Your task to perform on an android device: What's the weather? Image 0: 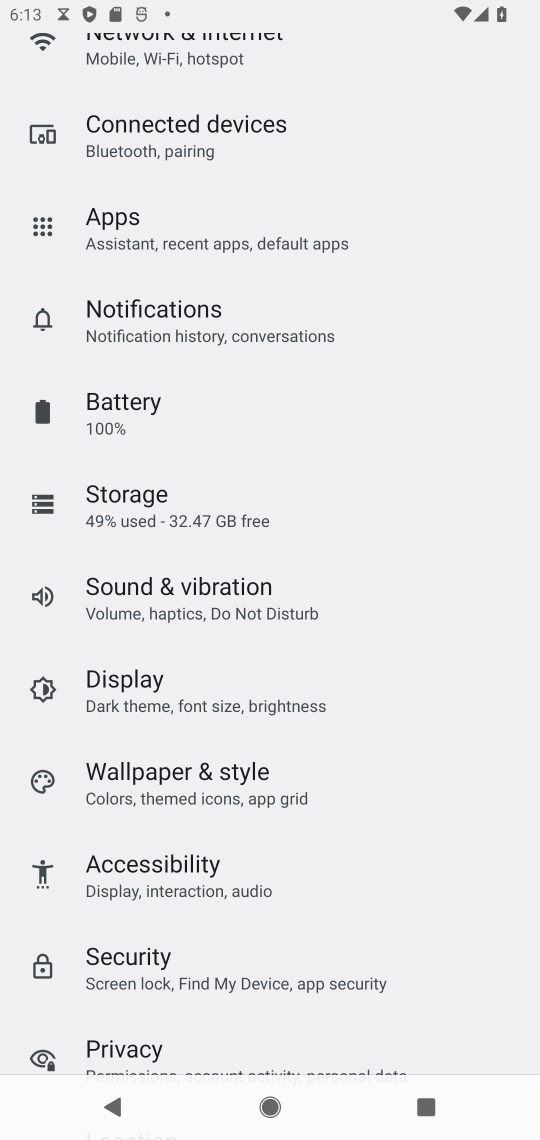
Step 0: press home button
Your task to perform on an android device: What's the weather? Image 1: 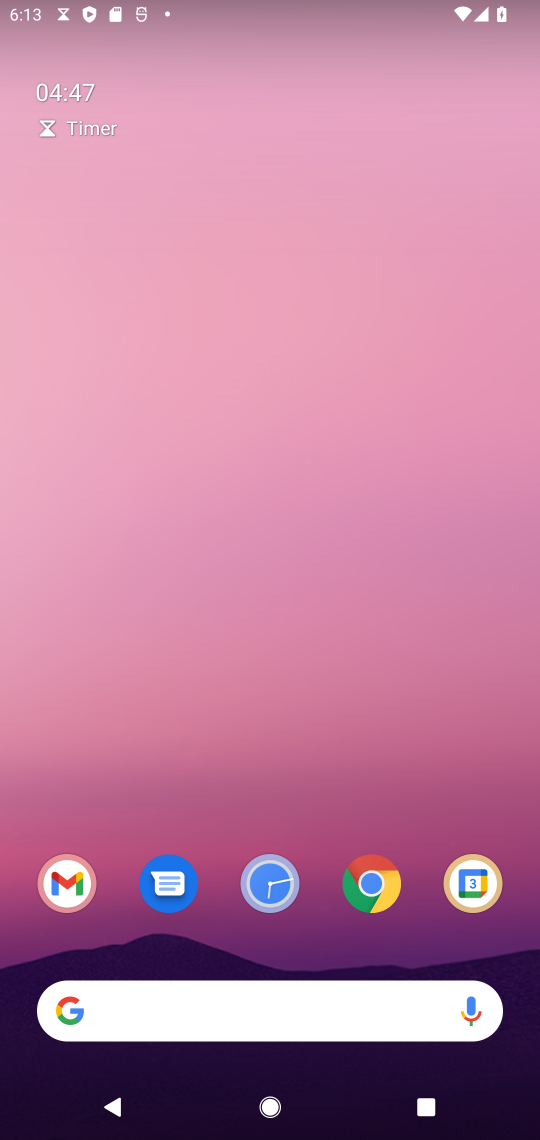
Step 1: drag from (253, 989) to (354, 144)
Your task to perform on an android device: What's the weather? Image 2: 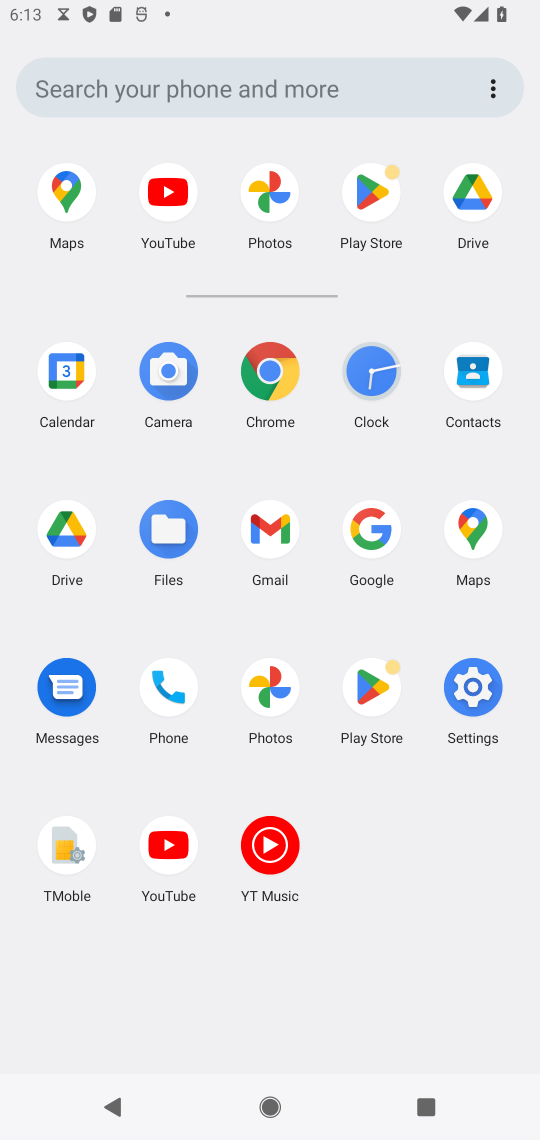
Step 2: click (367, 541)
Your task to perform on an android device: What's the weather? Image 3: 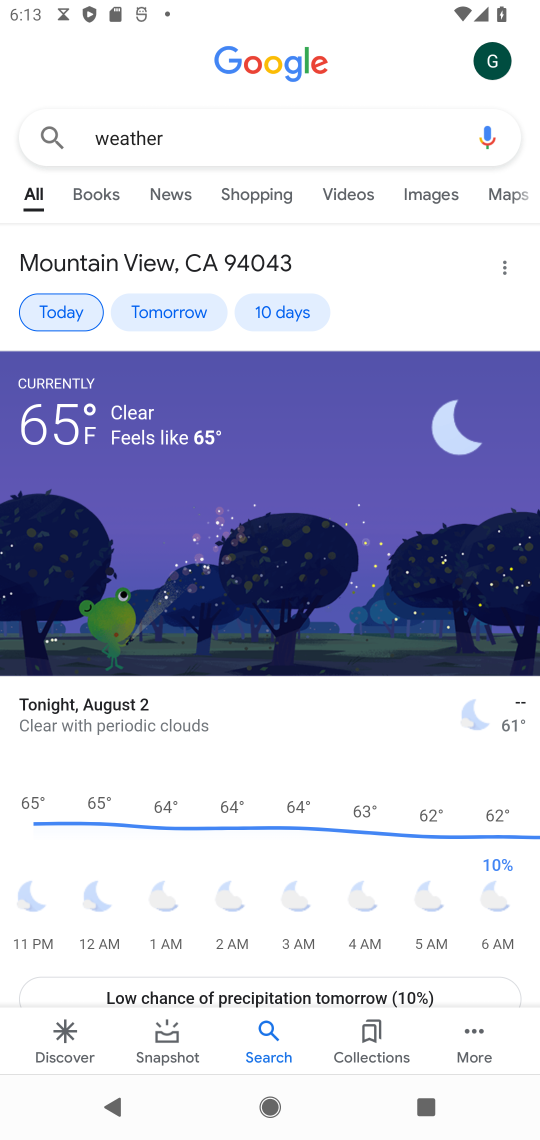
Step 3: click (195, 142)
Your task to perform on an android device: What's the weather? Image 4: 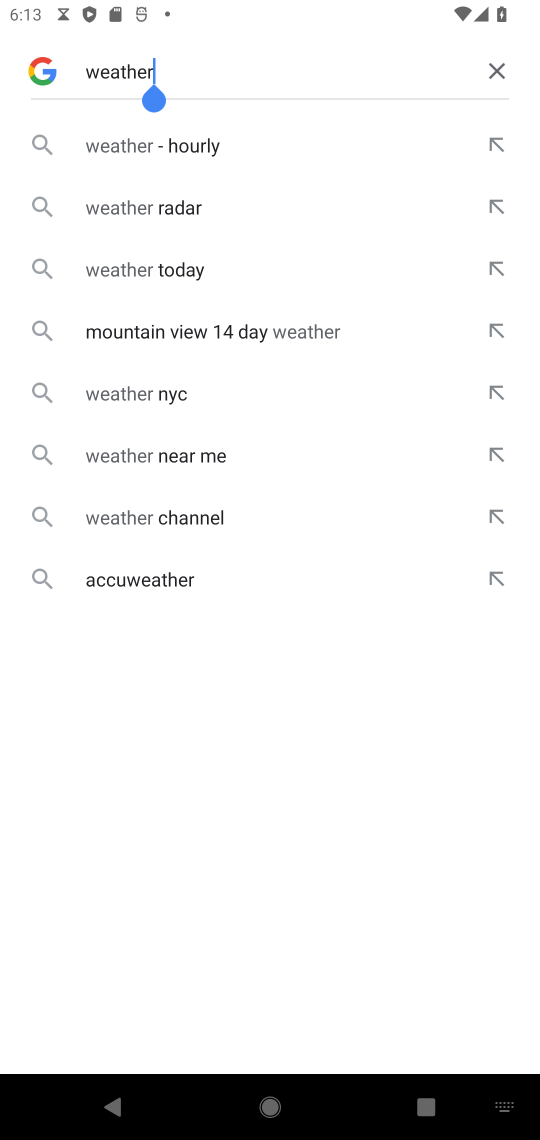
Step 4: click (498, 68)
Your task to perform on an android device: What's the weather? Image 5: 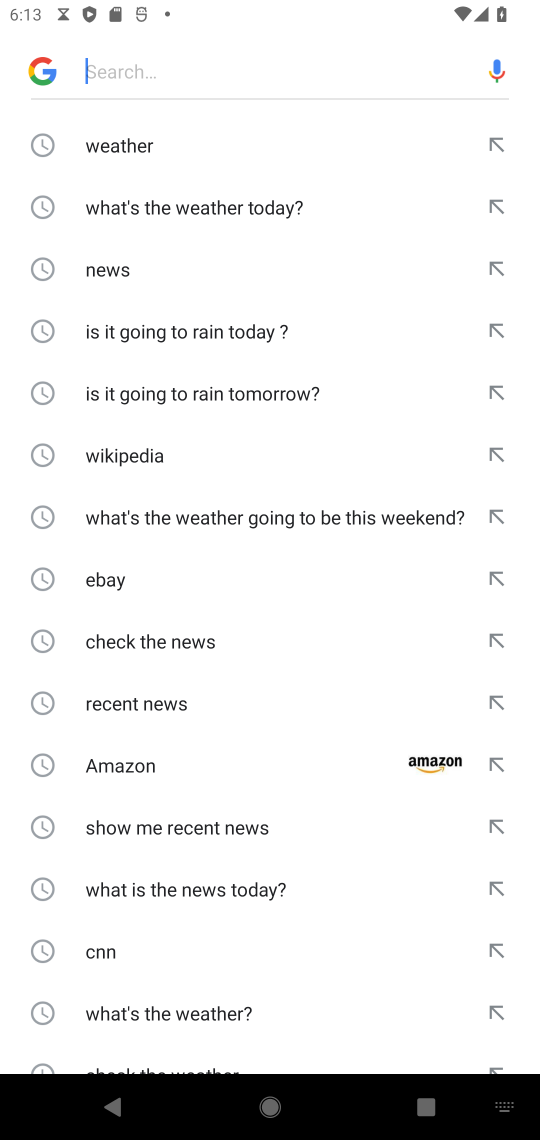
Step 5: click (114, 137)
Your task to perform on an android device: What's the weather? Image 6: 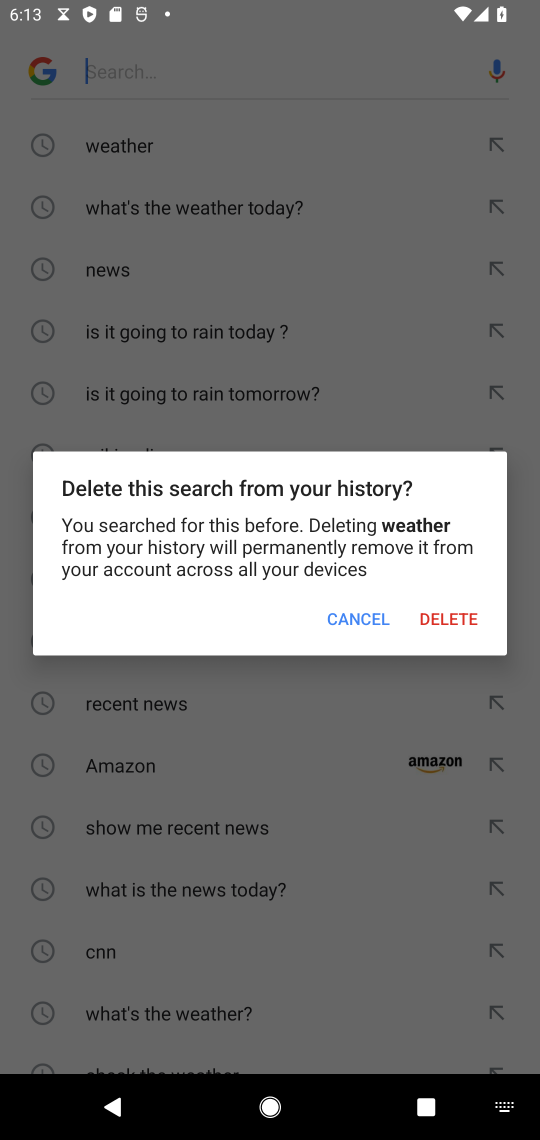
Step 6: click (318, 613)
Your task to perform on an android device: What's the weather? Image 7: 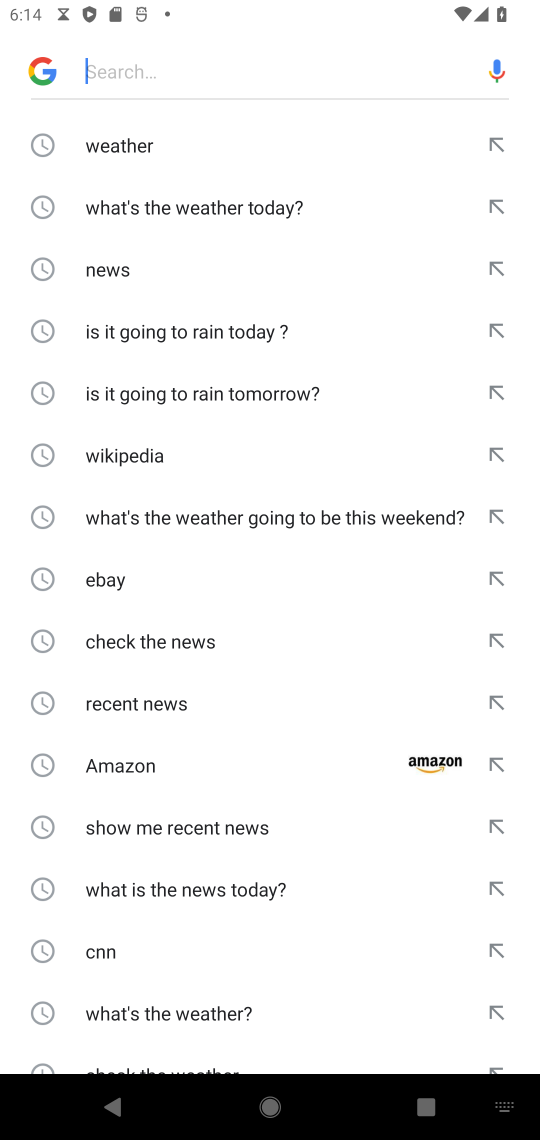
Step 7: click (161, 156)
Your task to perform on an android device: What's the weather? Image 8: 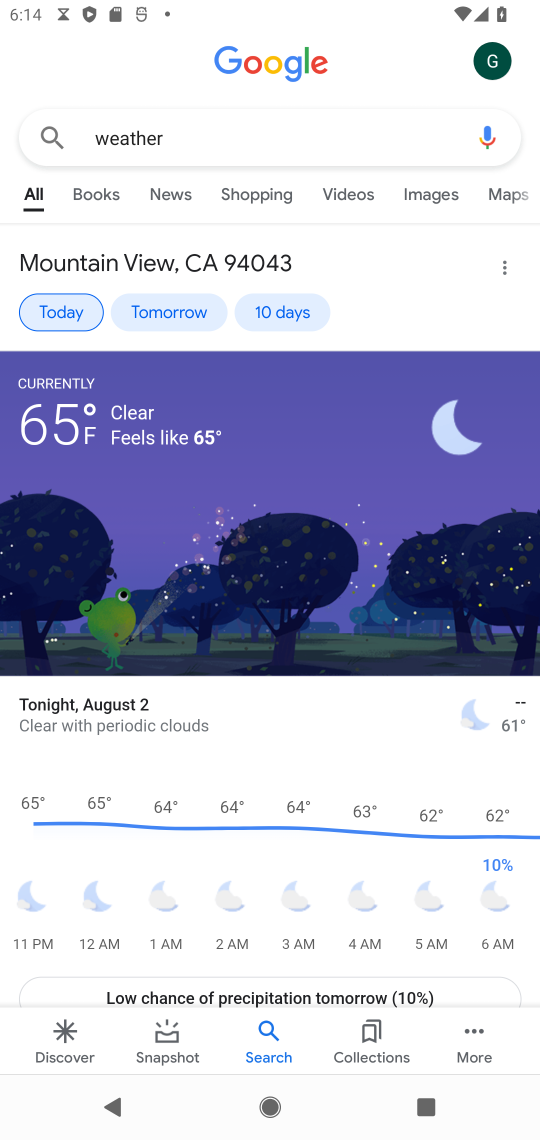
Step 8: task complete